Your task to perform on an android device: make emails show in primary in the gmail app Image 0: 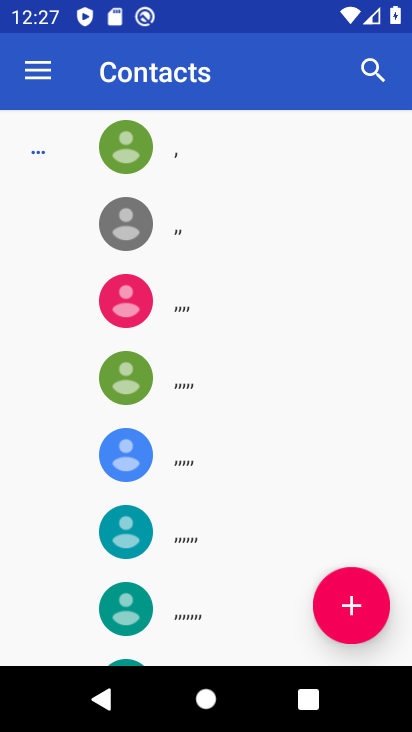
Step 0: press home button
Your task to perform on an android device: make emails show in primary in the gmail app Image 1: 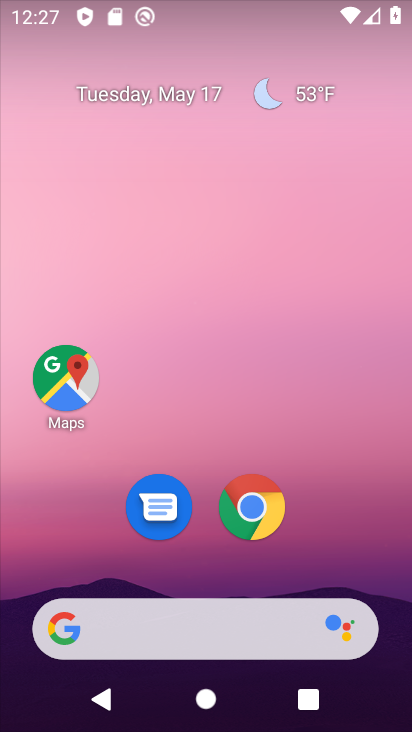
Step 1: drag from (223, 572) to (213, 0)
Your task to perform on an android device: make emails show in primary in the gmail app Image 2: 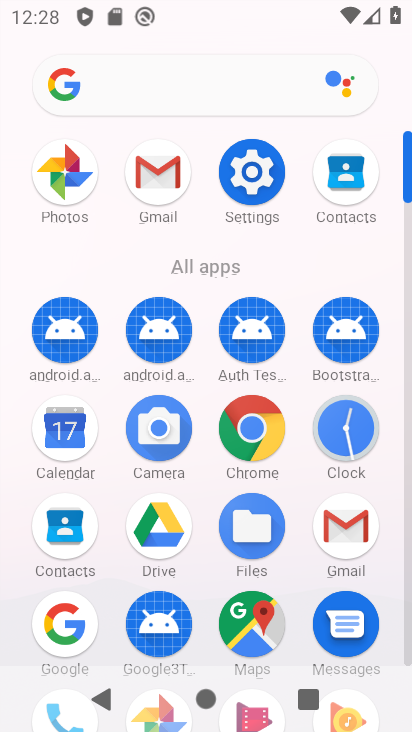
Step 2: click (347, 521)
Your task to perform on an android device: make emails show in primary in the gmail app Image 3: 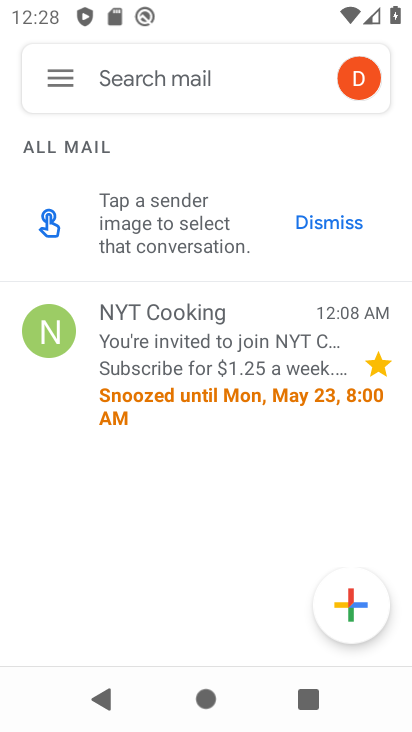
Step 3: click (52, 81)
Your task to perform on an android device: make emails show in primary in the gmail app Image 4: 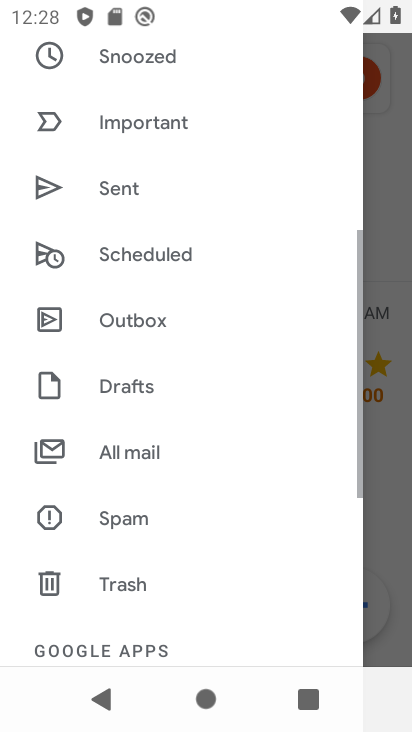
Step 4: drag from (184, 602) to (181, 311)
Your task to perform on an android device: make emails show in primary in the gmail app Image 5: 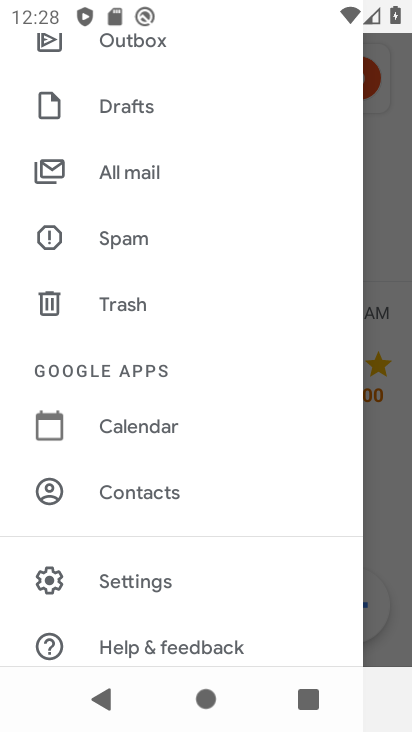
Step 5: click (135, 579)
Your task to perform on an android device: make emails show in primary in the gmail app Image 6: 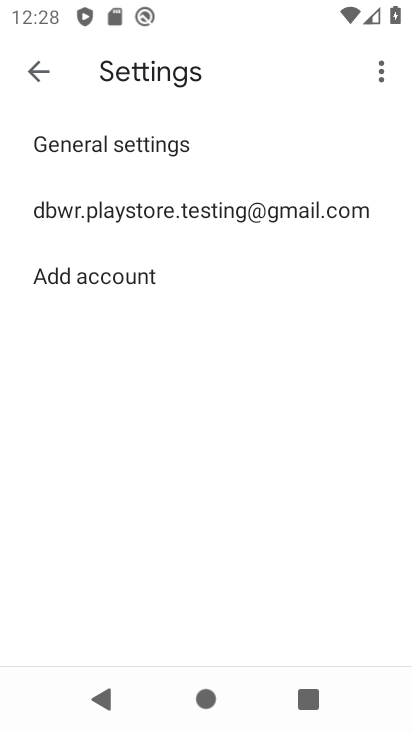
Step 6: click (74, 204)
Your task to perform on an android device: make emails show in primary in the gmail app Image 7: 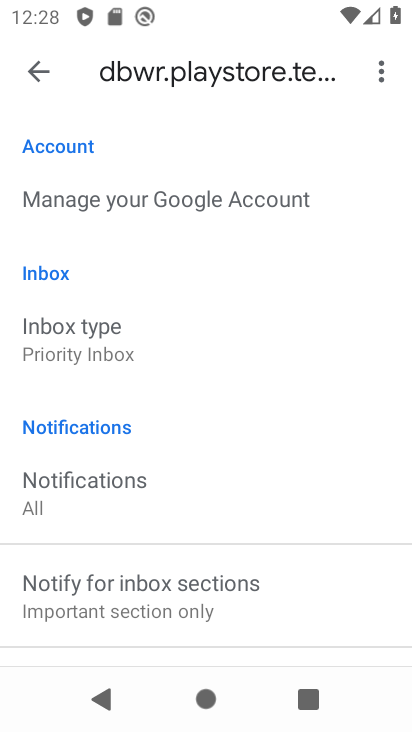
Step 7: click (35, 336)
Your task to perform on an android device: make emails show in primary in the gmail app Image 8: 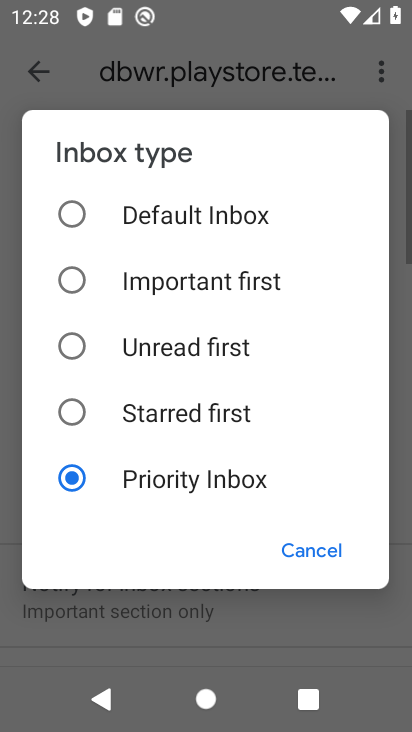
Step 8: click (184, 220)
Your task to perform on an android device: make emails show in primary in the gmail app Image 9: 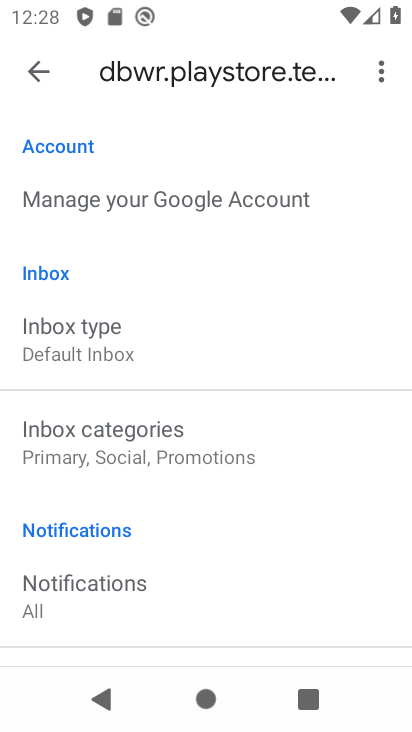
Step 9: task complete